Your task to perform on an android device: Clear the shopping cart on target.com. Image 0: 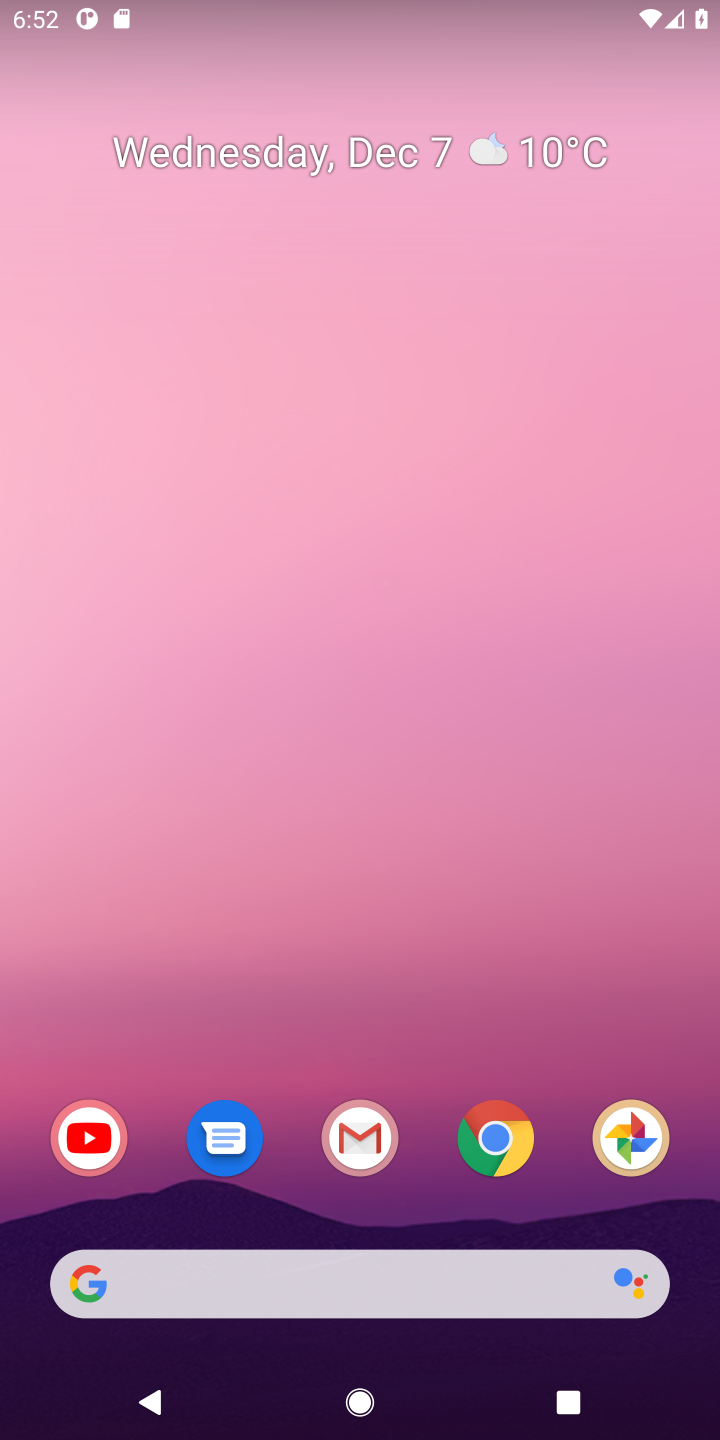
Step 0: press home button
Your task to perform on an android device: Clear the shopping cart on target.com. Image 1: 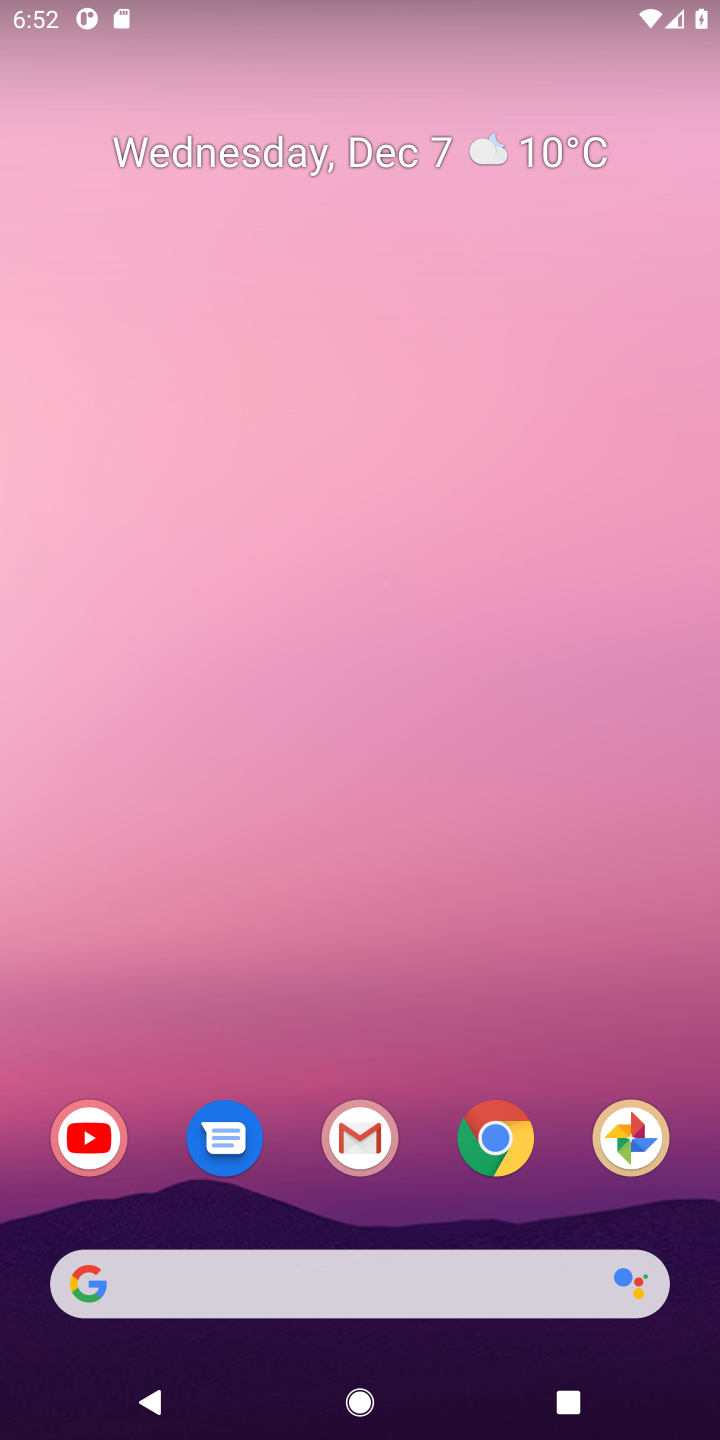
Step 1: click (136, 1270)
Your task to perform on an android device: Clear the shopping cart on target.com. Image 2: 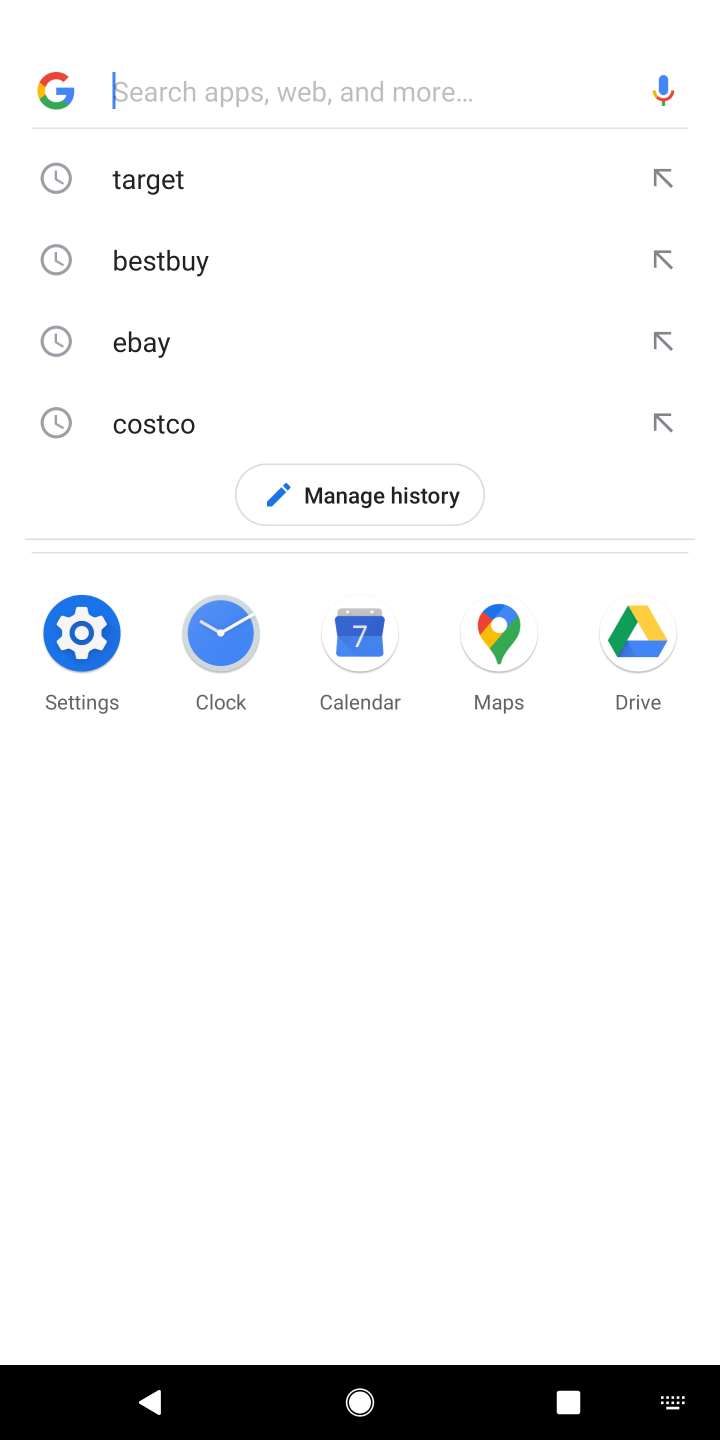
Step 2: type "target.com"
Your task to perform on an android device: Clear the shopping cart on target.com. Image 3: 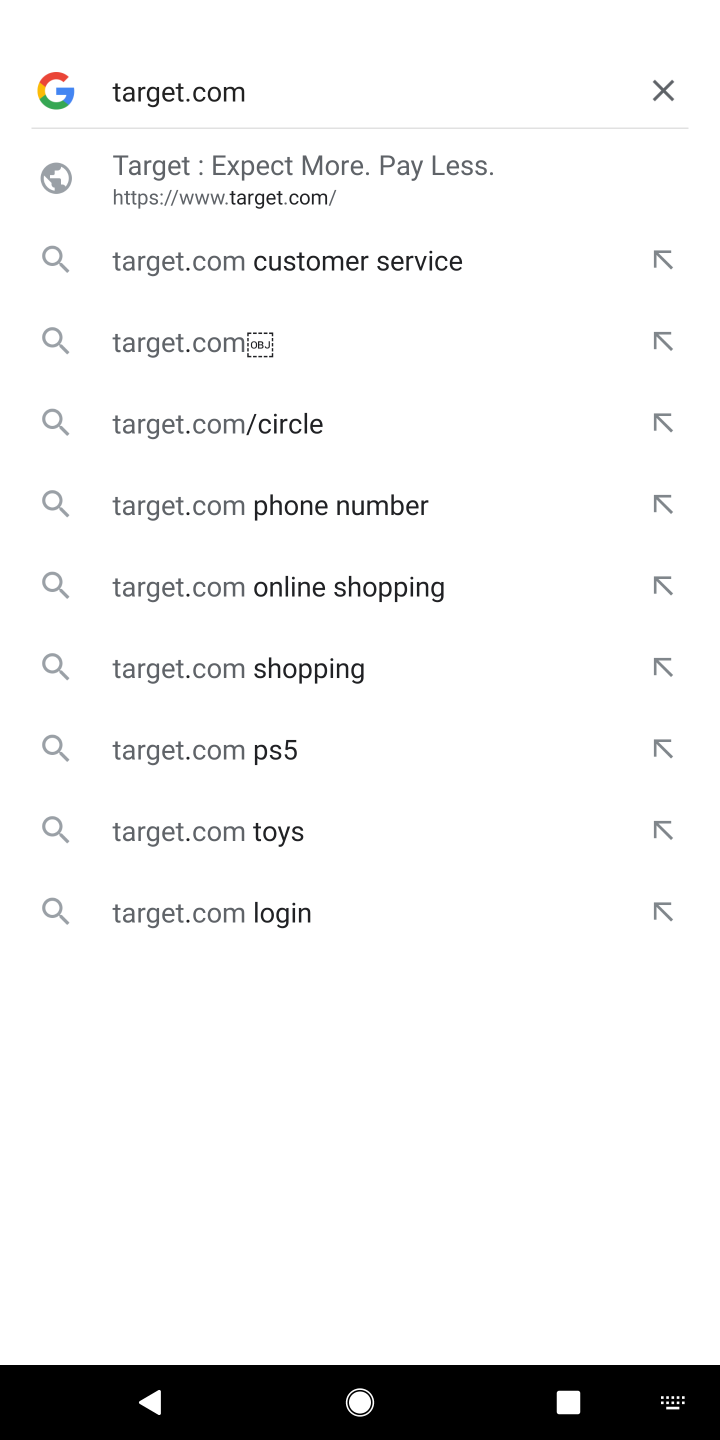
Step 3: press enter
Your task to perform on an android device: Clear the shopping cart on target.com. Image 4: 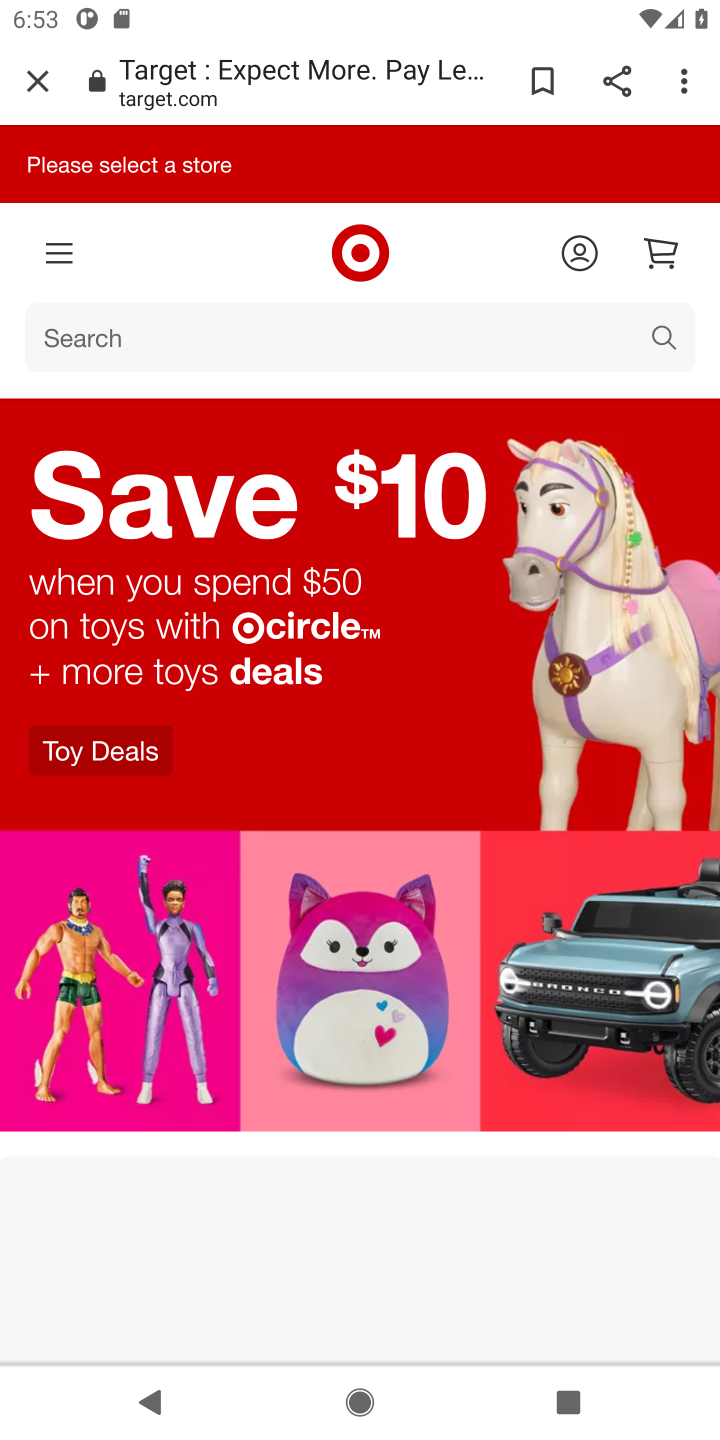
Step 4: click (649, 241)
Your task to perform on an android device: Clear the shopping cart on target.com. Image 5: 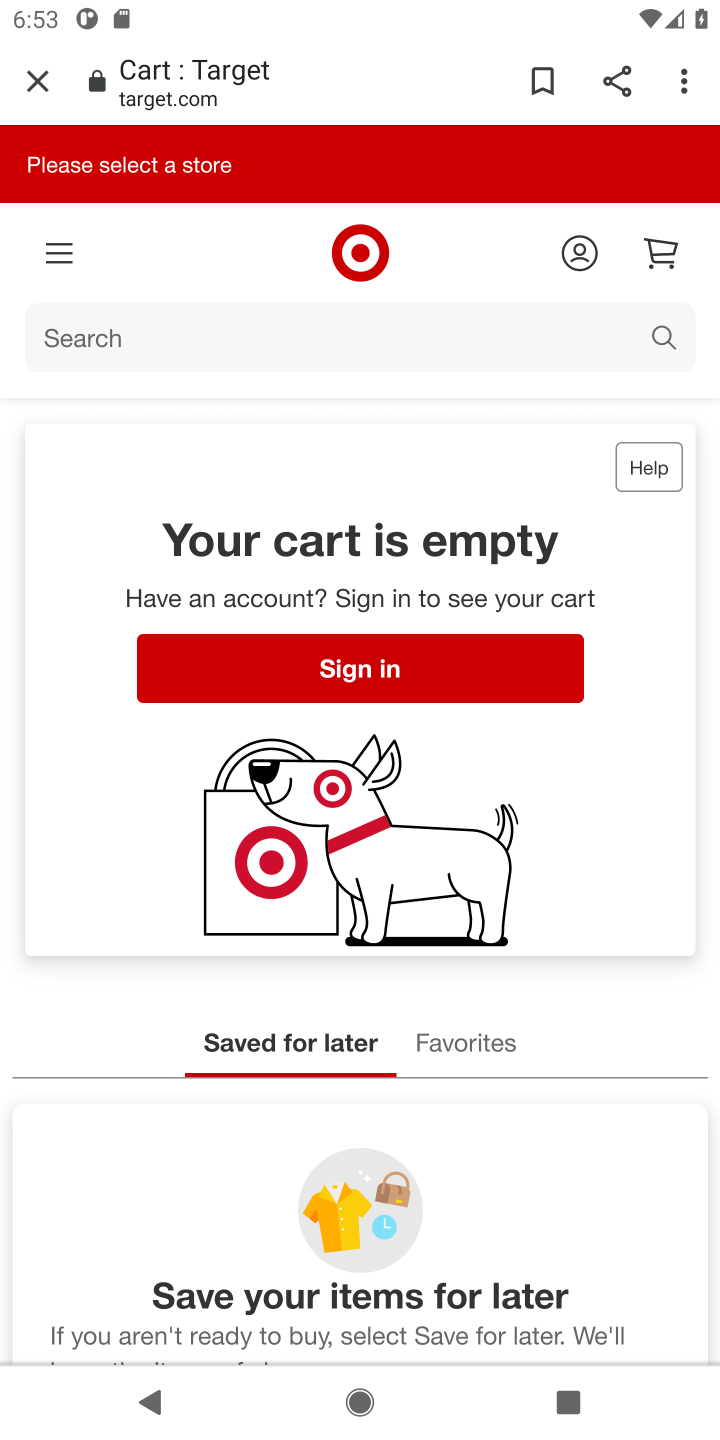
Step 5: task complete